Your task to perform on an android device: What is the news today? Image 0: 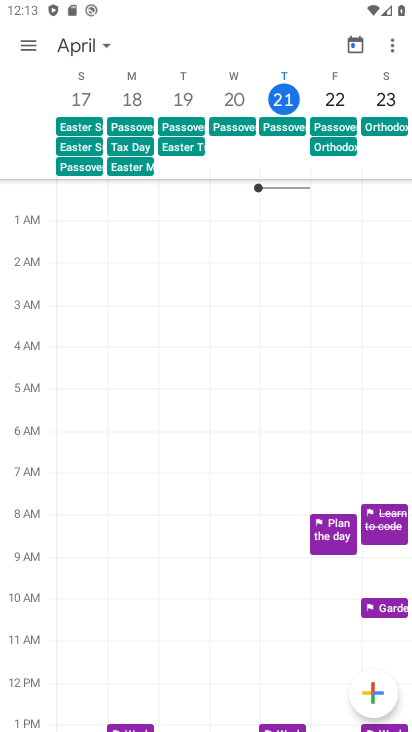
Step 0: press home button
Your task to perform on an android device: What is the news today? Image 1: 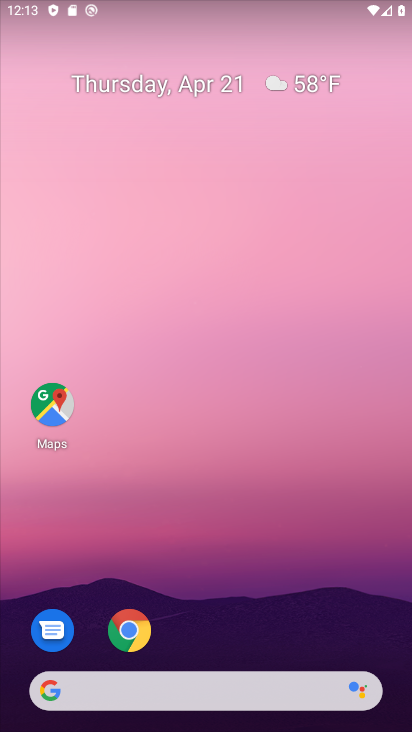
Step 1: drag from (187, 688) to (283, 110)
Your task to perform on an android device: What is the news today? Image 2: 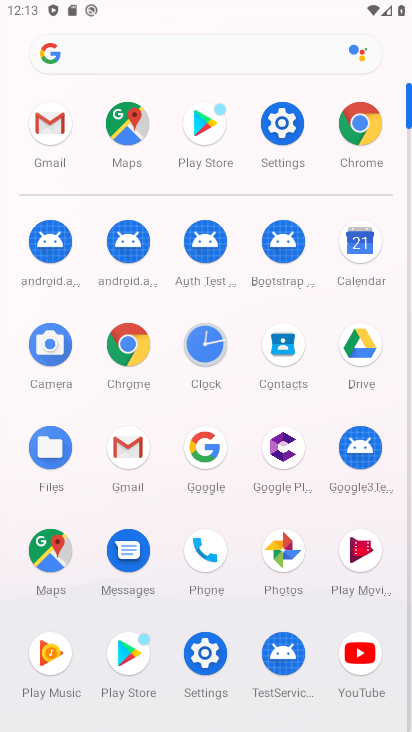
Step 2: click (205, 454)
Your task to perform on an android device: What is the news today? Image 3: 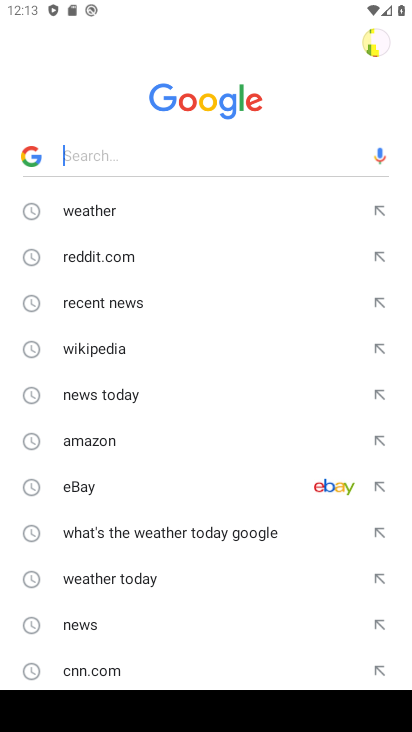
Step 3: click (73, 391)
Your task to perform on an android device: What is the news today? Image 4: 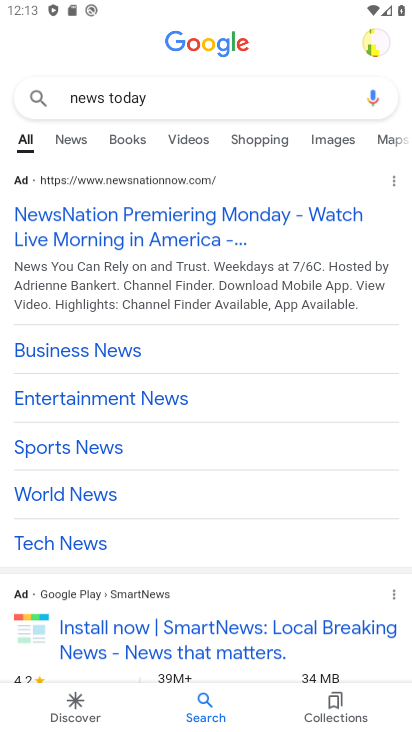
Step 4: task complete